Your task to perform on an android device: set an alarm Image 0: 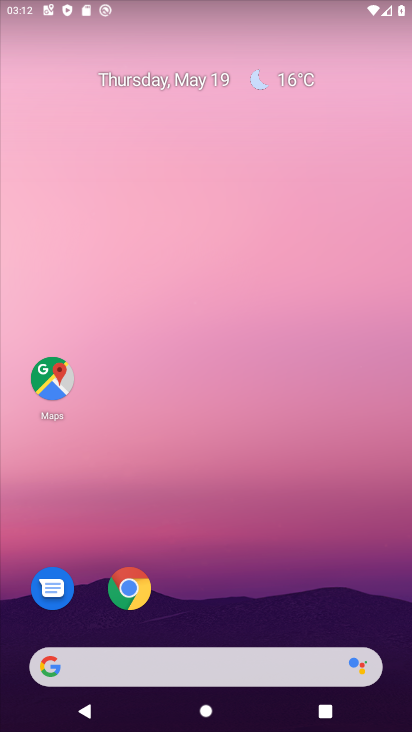
Step 0: drag from (210, 588) to (204, 131)
Your task to perform on an android device: set an alarm Image 1: 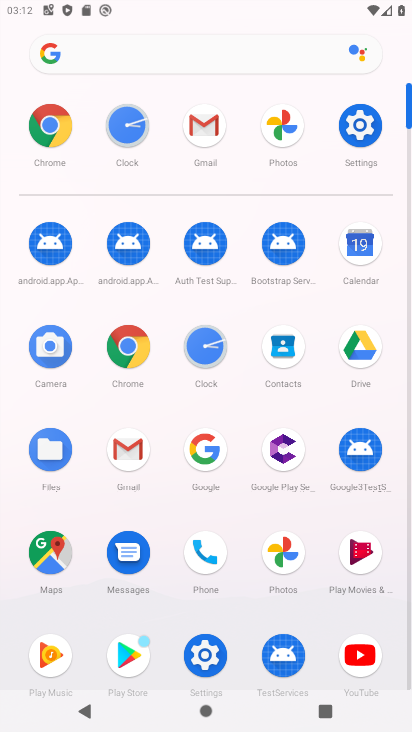
Step 1: click (215, 347)
Your task to perform on an android device: set an alarm Image 2: 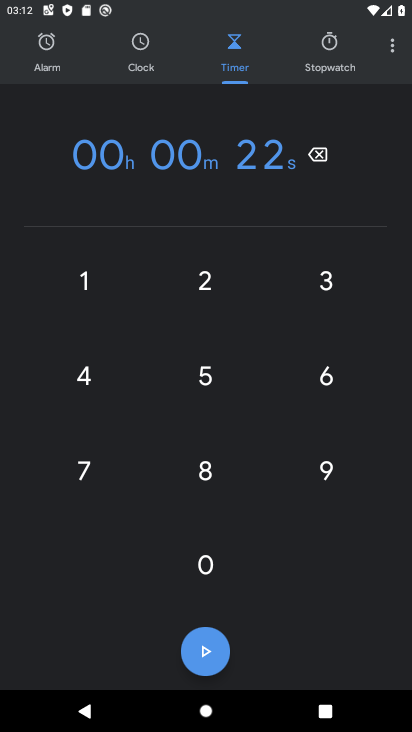
Step 2: click (44, 68)
Your task to perform on an android device: set an alarm Image 3: 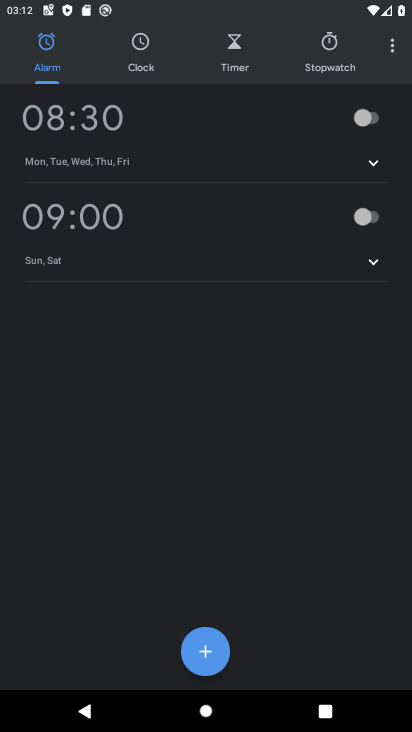
Step 3: click (360, 119)
Your task to perform on an android device: set an alarm Image 4: 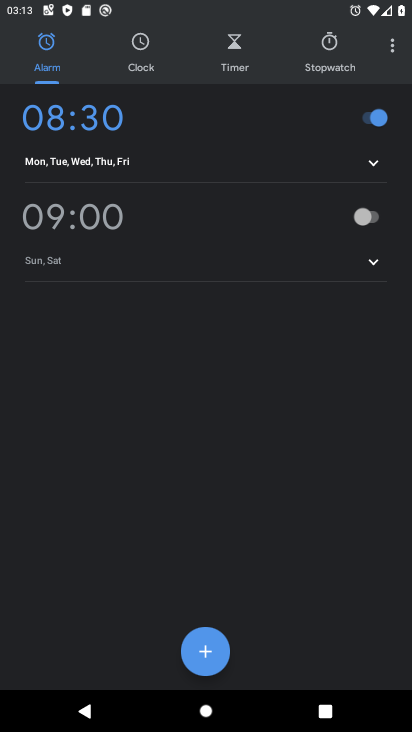
Step 4: task complete